Your task to perform on an android device: Open Chrome and go to settings Image 0: 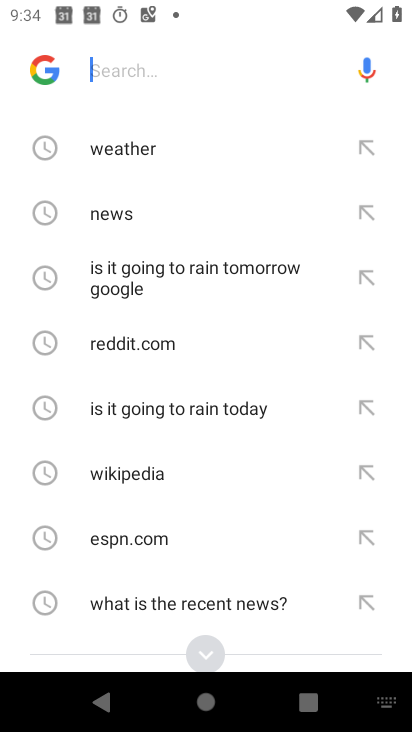
Step 0: press home button
Your task to perform on an android device: Open Chrome and go to settings Image 1: 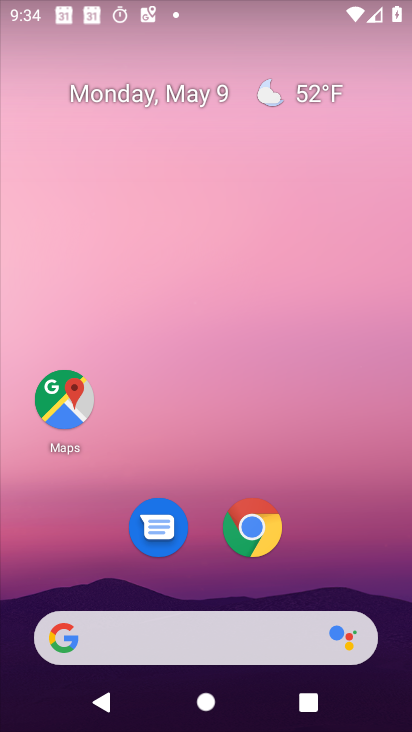
Step 1: drag from (0, 0) to (313, 78)
Your task to perform on an android device: Open Chrome and go to settings Image 2: 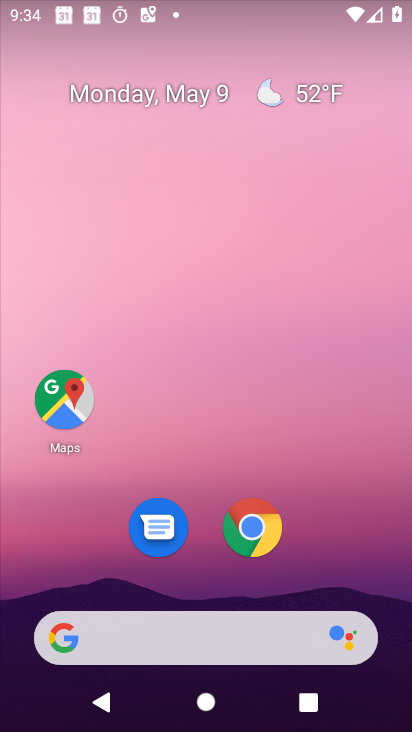
Step 2: click (243, 552)
Your task to perform on an android device: Open Chrome and go to settings Image 3: 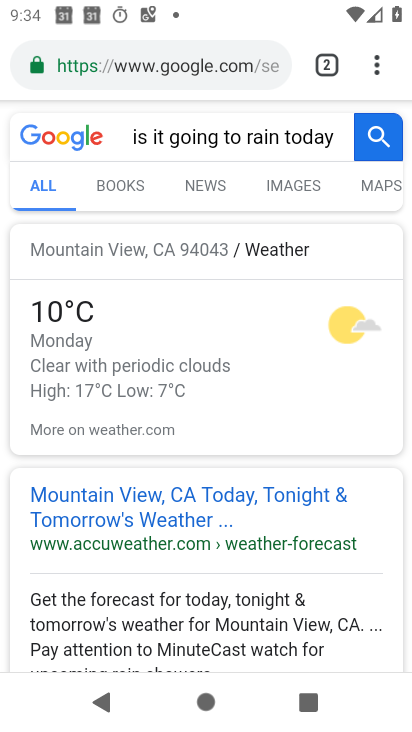
Step 3: click (348, 86)
Your task to perform on an android device: Open Chrome and go to settings Image 4: 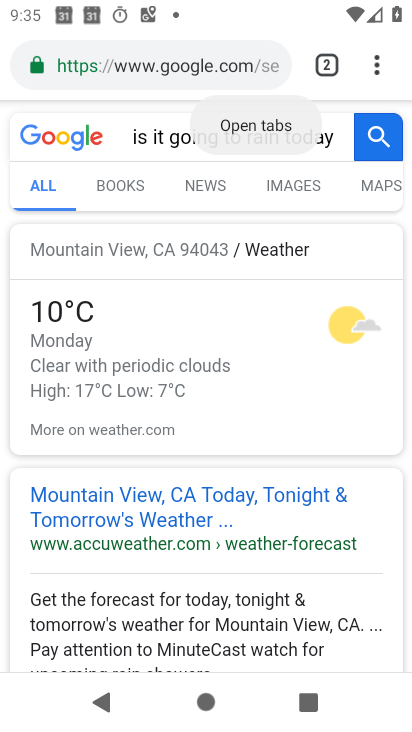
Step 4: drag from (377, 67) to (196, 611)
Your task to perform on an android device: Open Chrome and go to settings Image 5: 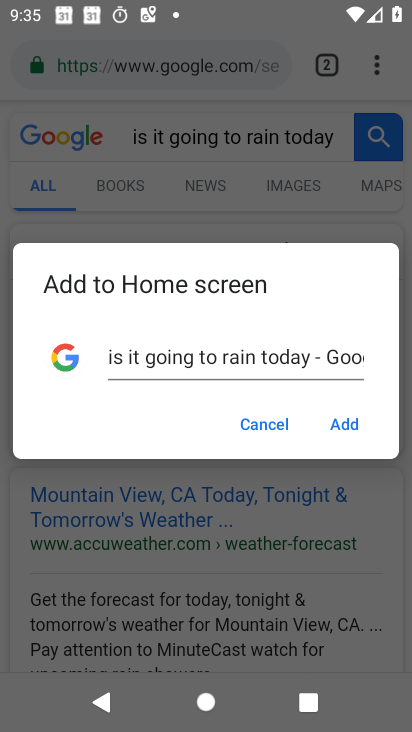
Step 5: click (254, 433)
Your task to perform on an android device: Open Chrome and go to settings Image 6: 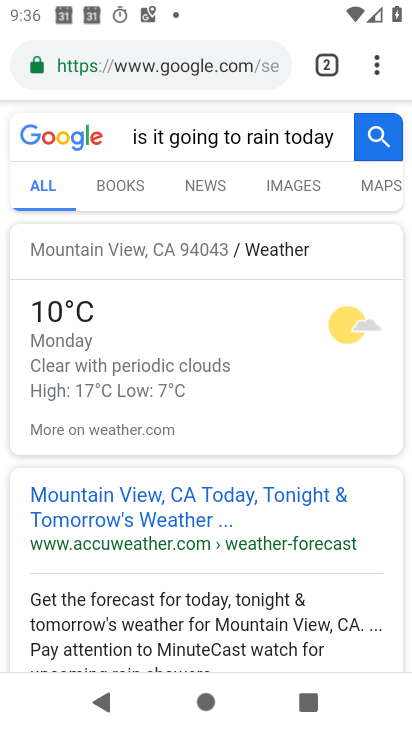
Step 6: task complete